Your task to perform on an android device: Go to settings Image 0: 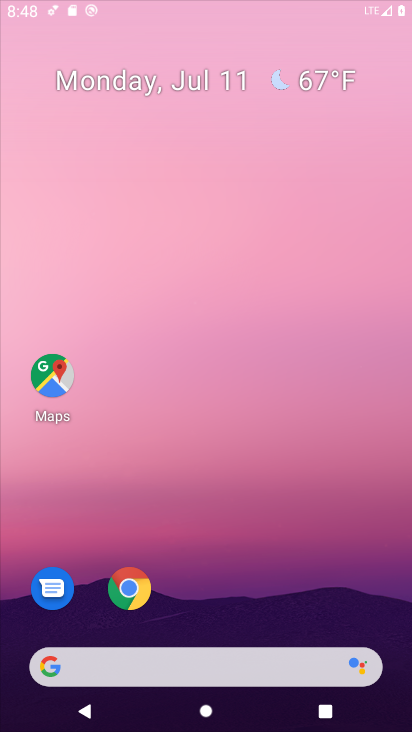
Step 0: drag from (278, 564) to (327, 4)
Your task to perform on an android device: Go to settings Image 1: 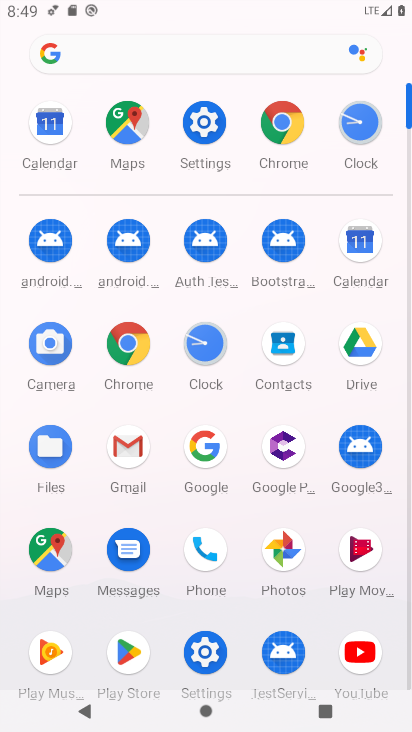
Step 1: click (206, 114)
Your task to perform on an android device: Go to settings Image 2: 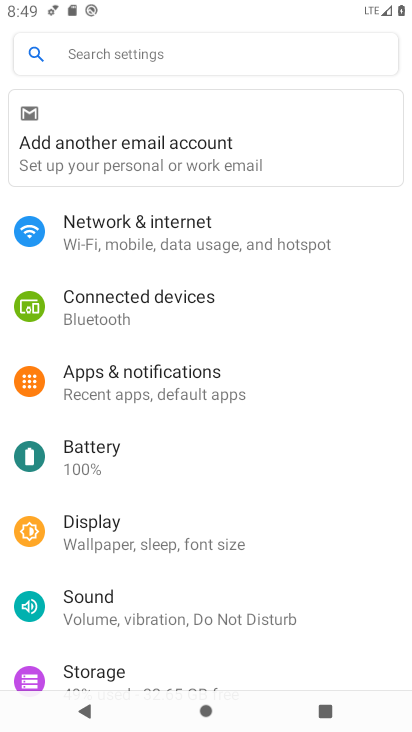
Step 2: task complete